Your task to perform on an android device: check the backup settings in the google photos Image 0: 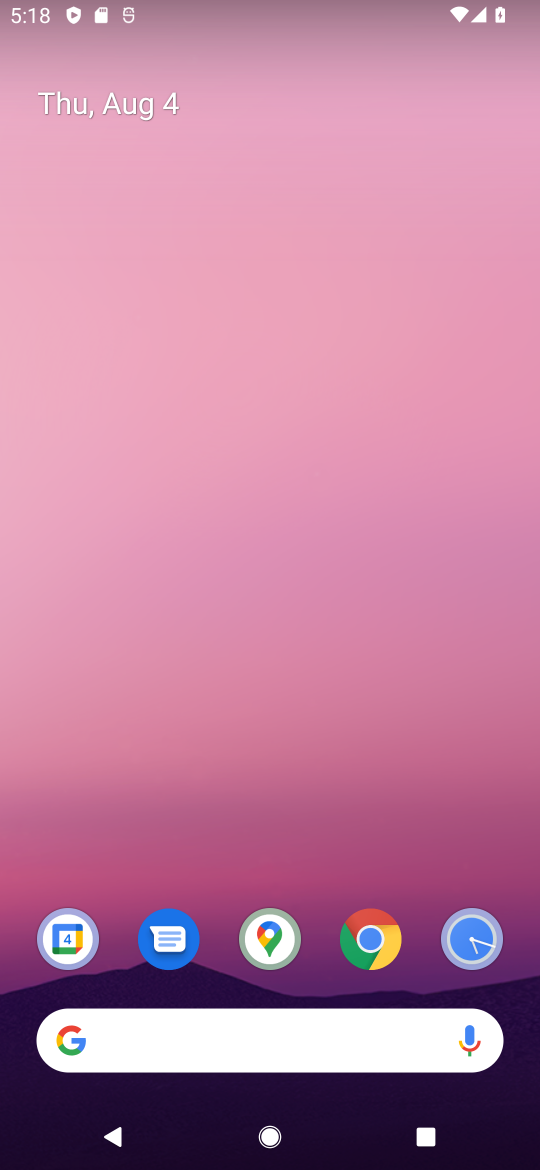
Step 0: drag from (286, 1017) to (347, 423)
Your task to perform on an android device: check the backup settings in the google photos Image 1: 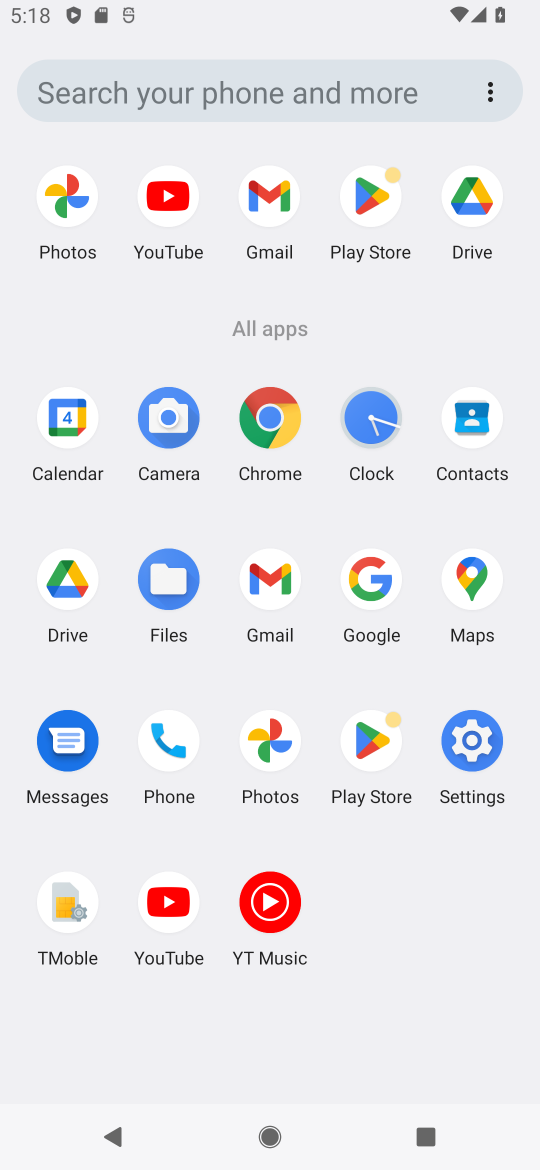
Step 1: click (271, 753)
Your task to perform on an android device: check the backup settings in the google photos Image 2: 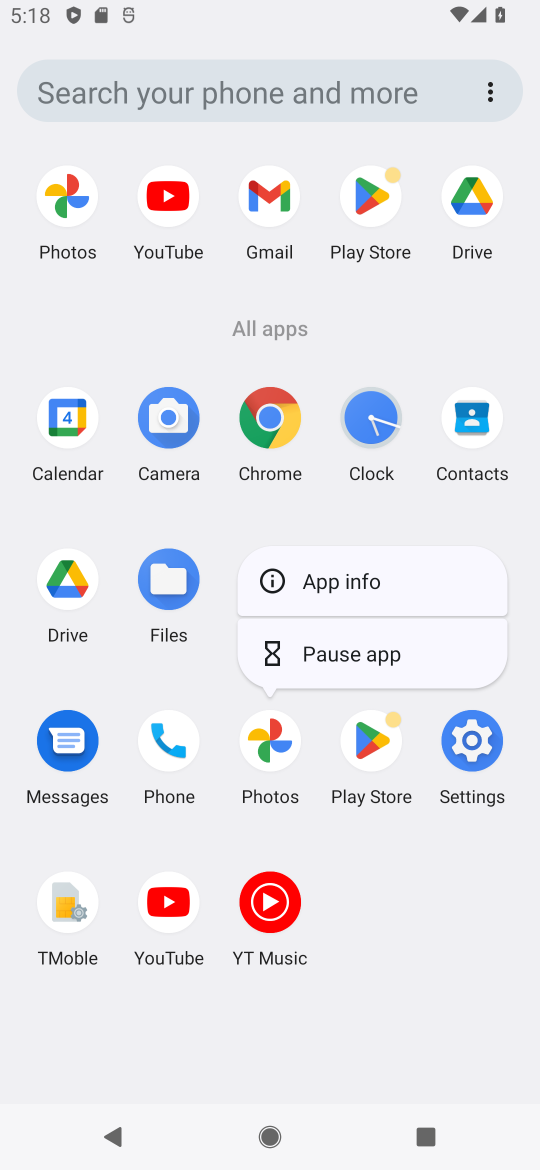
Step 2: click (267, 738)
Your task to perform on an android device: check the backup settings in the google photos Image 3: 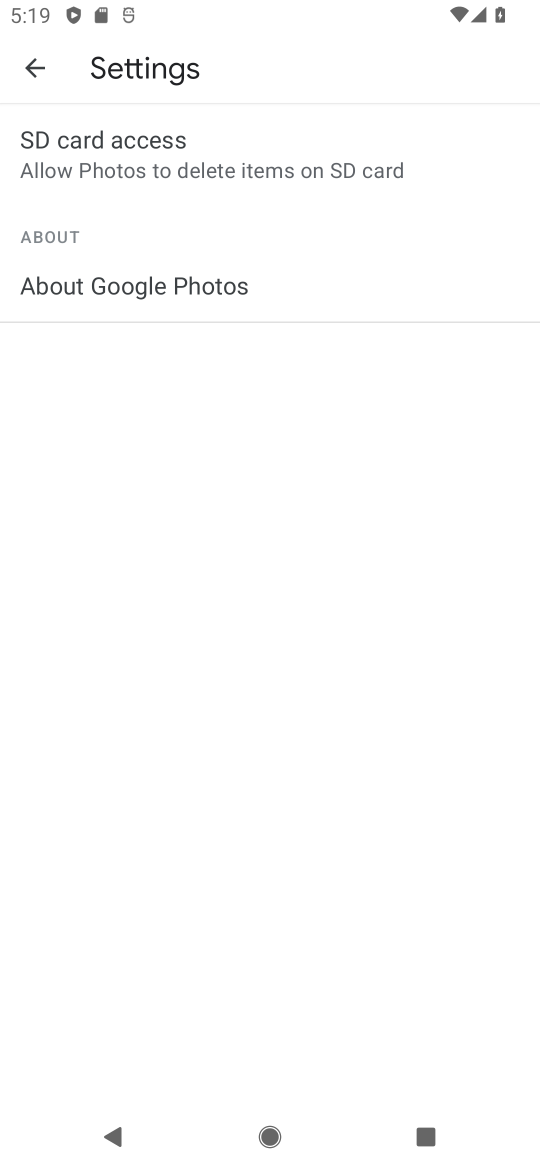
Step 3: click (33, 63)
Your task to perform on an android device: check the backup settings in the google photos Image 4: 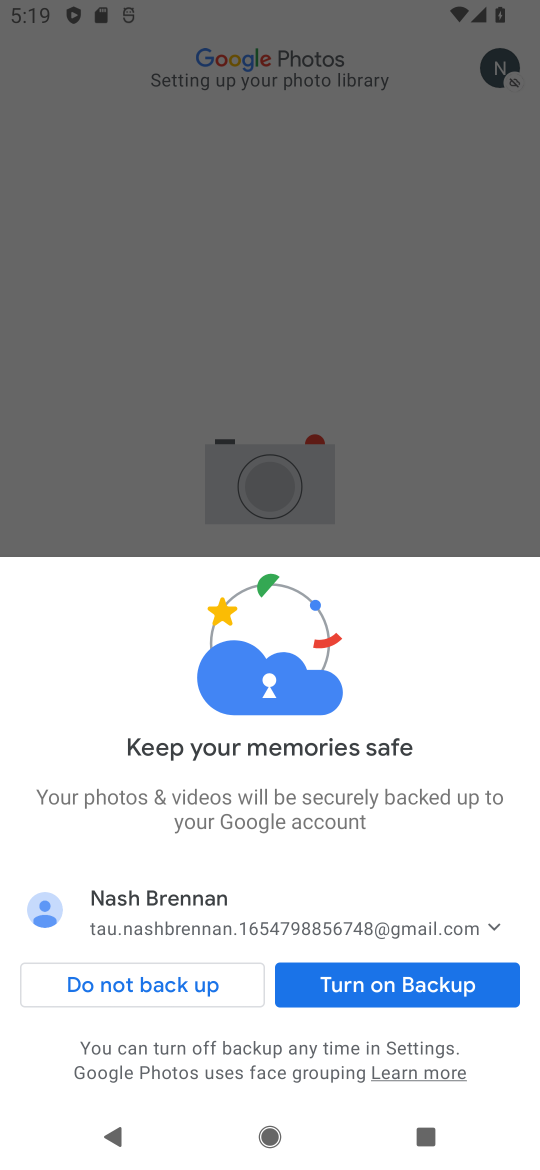
Step 4: click (366, 984)
Your task to perform on an android device: check the backup settings in the google photos Image 5: 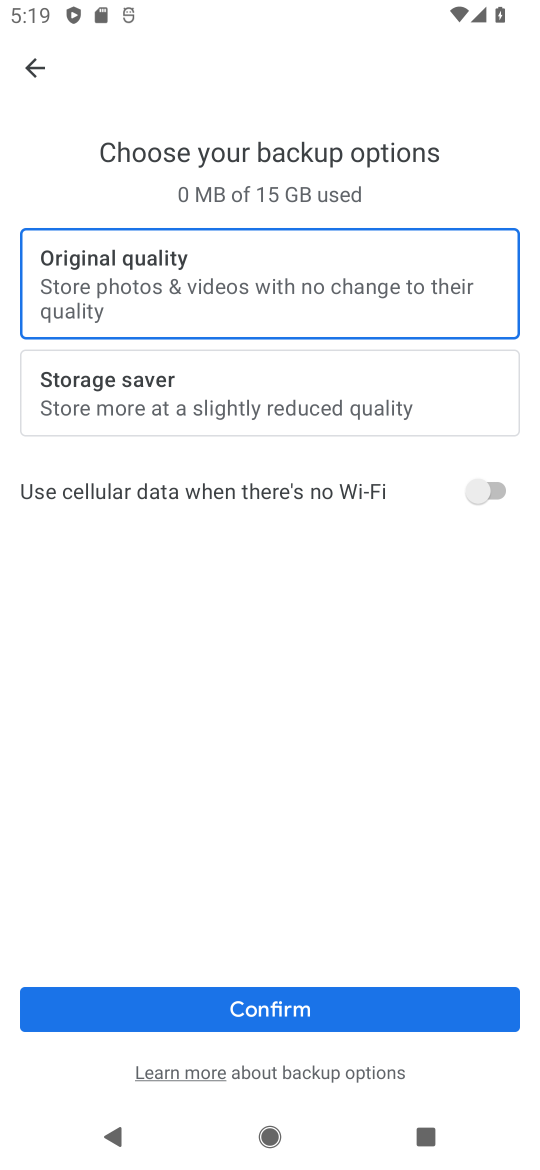
Step 5: click (298, 1011)
Your task to perform on an android device: check the backup settings in the google photos Image 6: 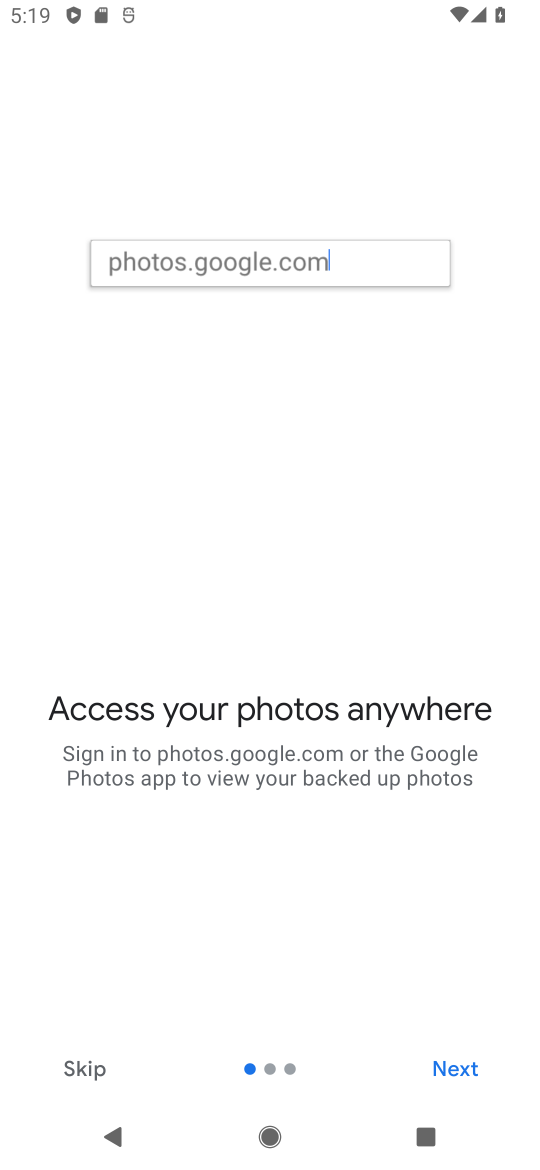
Step 6: click (462, 1074)
Your task to perform on an android device: check the backup settings in the google photos Image 7: 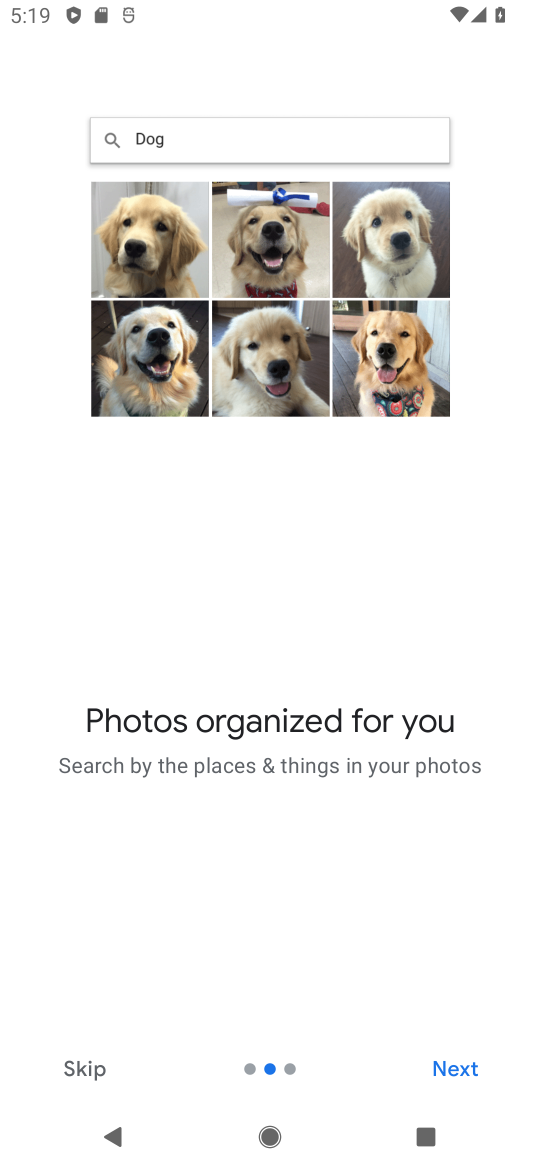
Step 7: click (456, 1063)
Your task to perform on an android device: check the backup settings in the google photos Image 8: 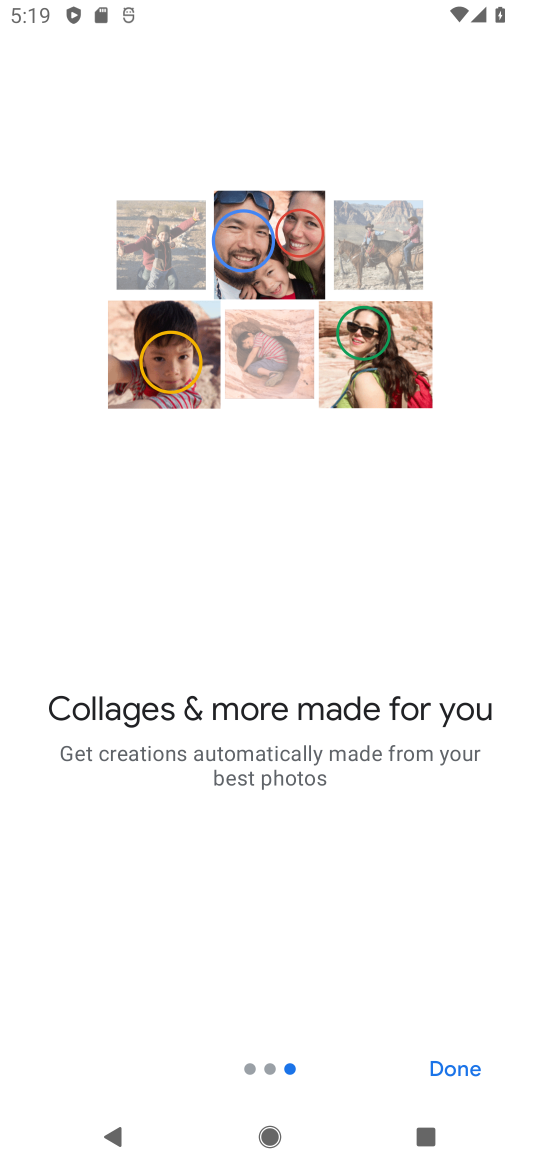
Step 8: click (456, 1063)
Your task to perform on an android device: check the backup settings in the google photos Image 9: 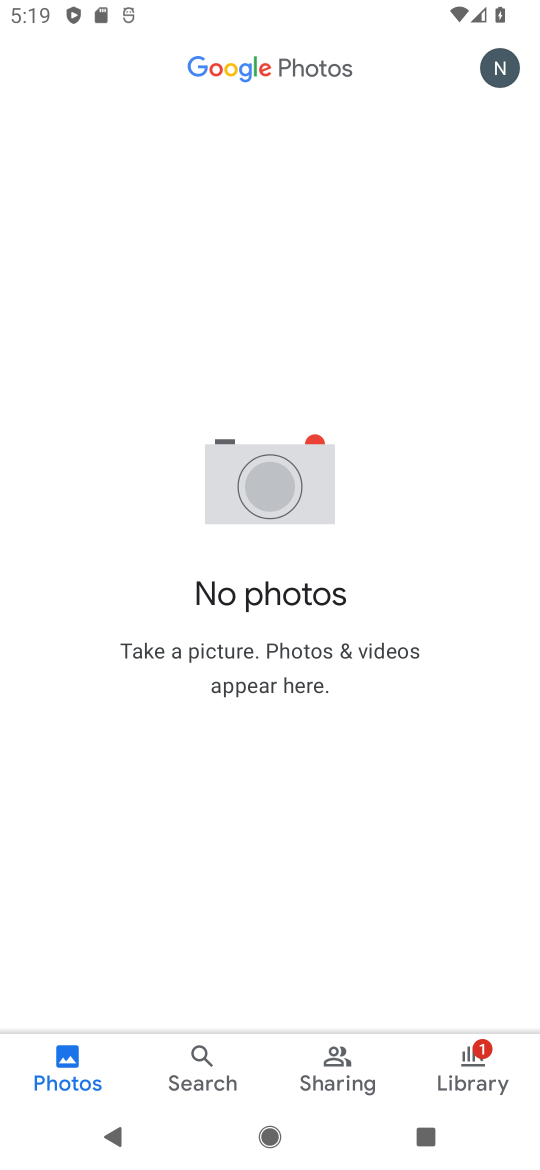
Step 9: click (504, 83)
Your task to perform on an android device: check the backup settings in the google photos Image 10: 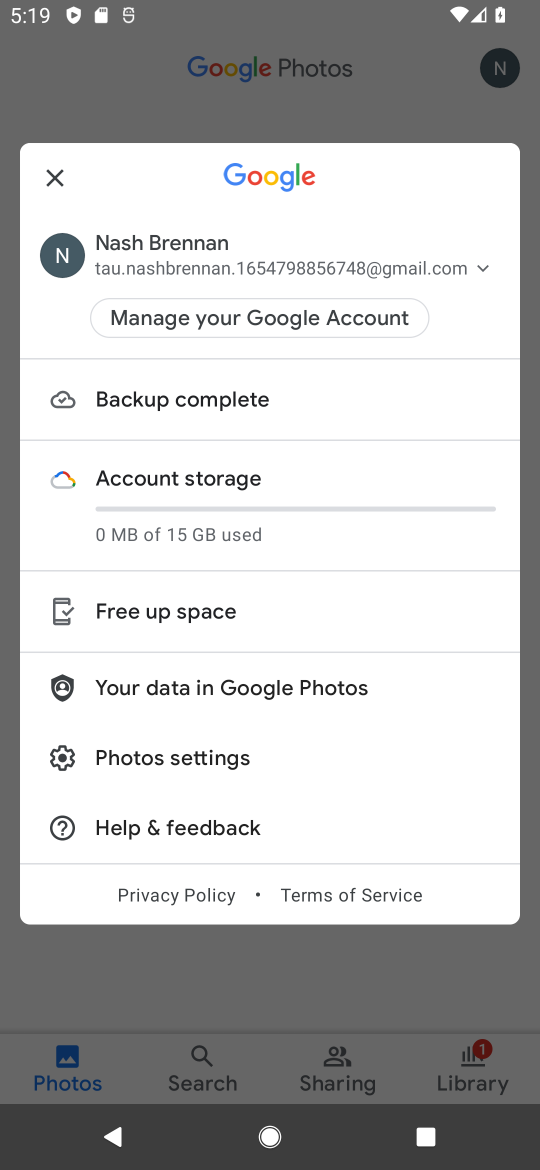
Step 10: click (191, 758)
Your task to perform on an android device: check the backup settings in the google photos Image 11: 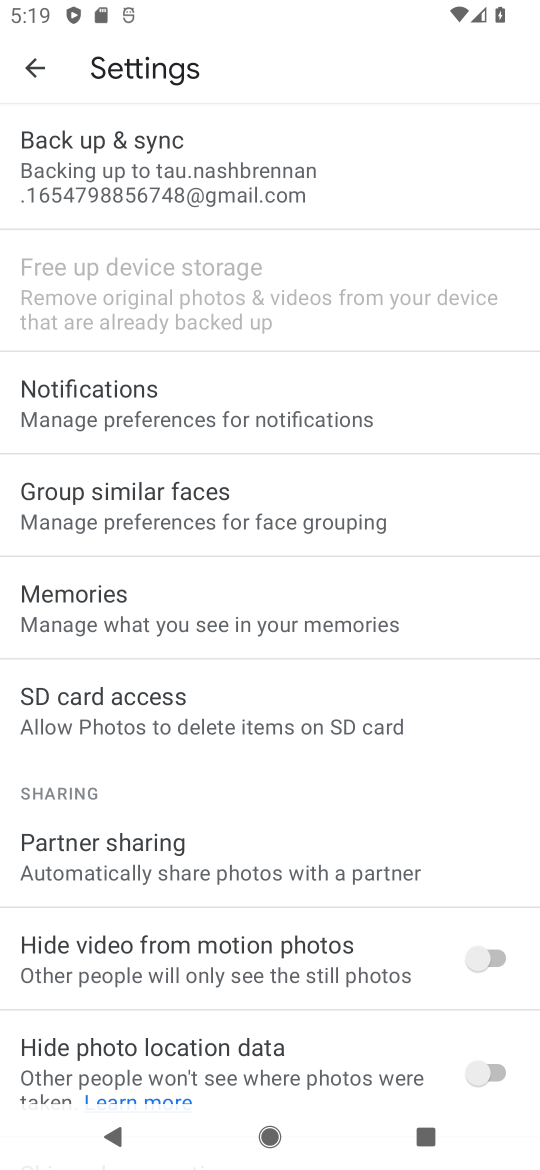
Step 11: click (106, 170)
Your task to perform on an android device: check the backup settings in the google photos Image 12: 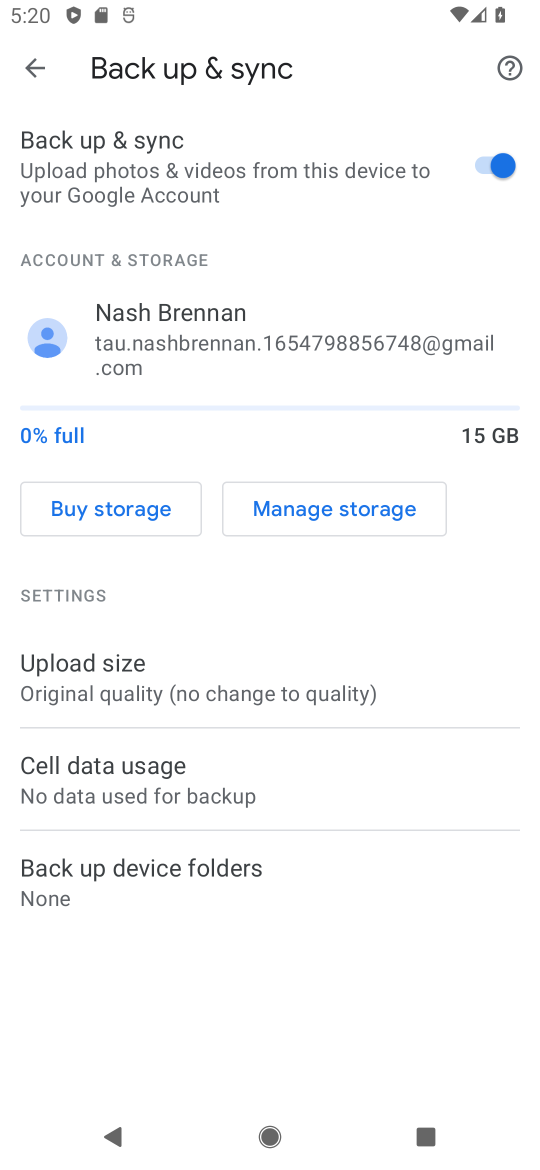
Step 12: task complete